Your task to perform on an android device: Search for the new Nintendo switch on Walmart. Image 0: 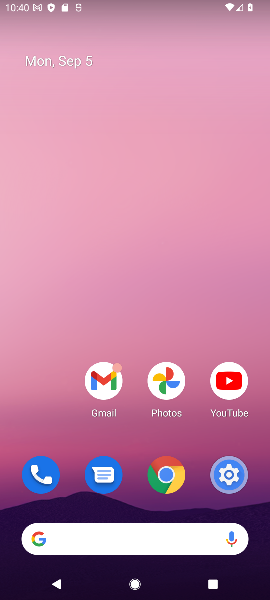
Step 0: click (109, 542)
Your task to perform on an android device: Search for the new Nintendo switch on Walmart. Image 1: 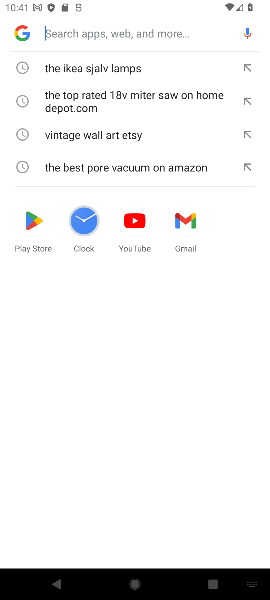
Step 1: type "the new Nintendo switch on Walmart."
Your task to perform on an android device: Search for the new Nintendo switch on Walmart. Image 2: 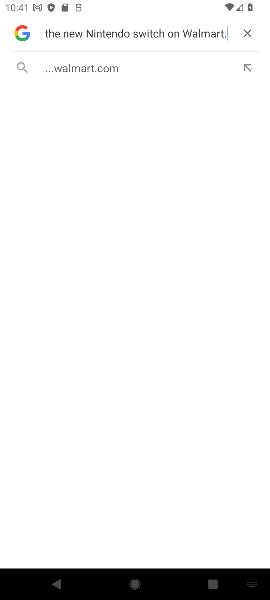
Step 2: click (103, 71)
Your task to perform on an android device: Search for the new Nintendo switch on Walmart. Image 3: 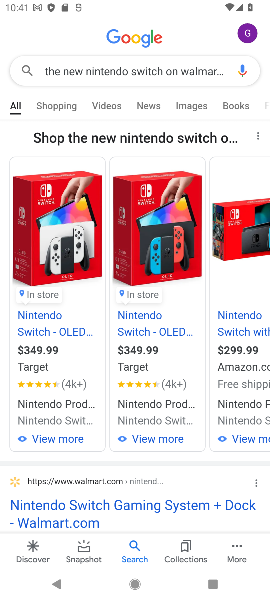
Step 3: task complete